Your task to perform on an android device: Is it going to rain tomorrow? Image 0: 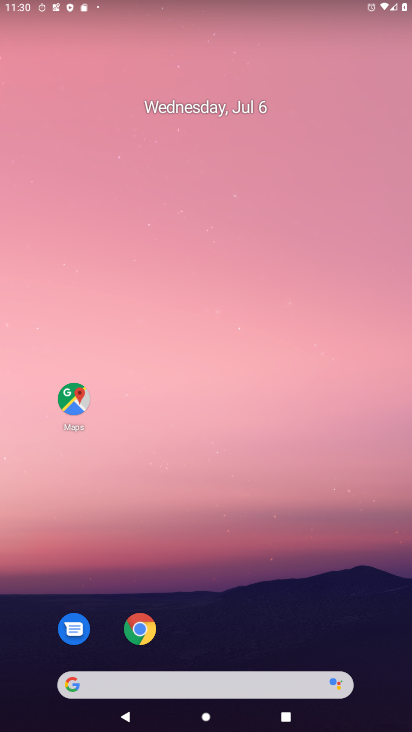
Step 0: drag from (202, 572) to (203, 43)
Your task to perform on an android device: Is it going to rain tomorrow? Image 1: 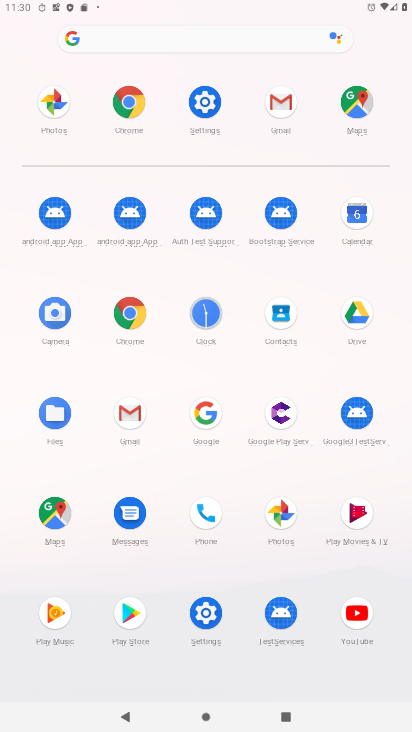
Step 1: click (215, 414)
Your task to perform on an android device: Is it going to rain tomorrow? Image 2: 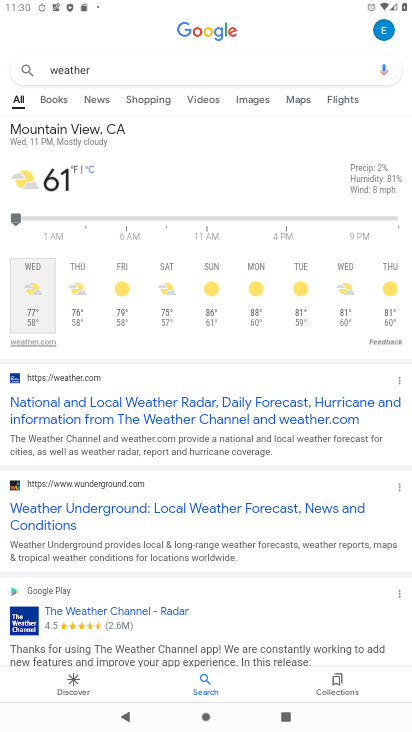
Step 2: click (170, 63)
Your task to perform on an android device: Is it going to rain tomorrow? Image 3: 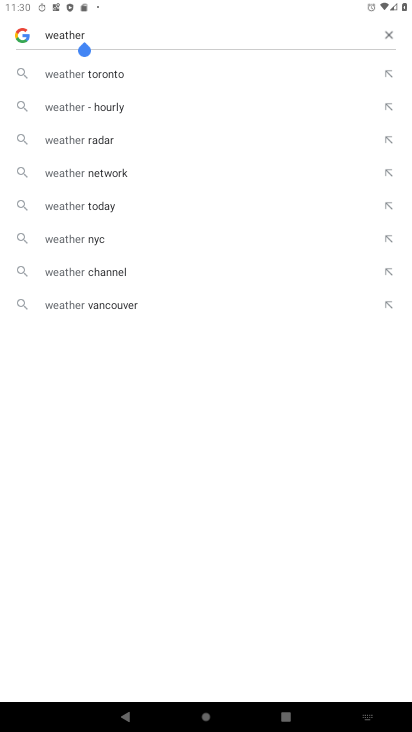
Step 3: click (385, 34)
Your task to perform on an android device: Is it going to rain tomorrow? Image 4: 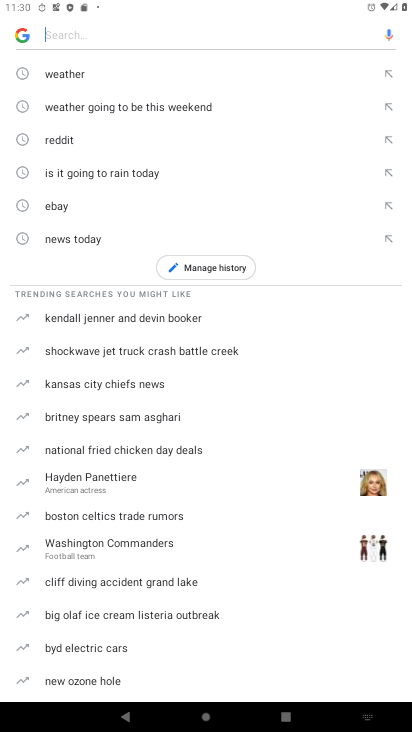
Step 4: type "Is it going to rain tomorrow?"
Your task to perform on an android device: Is it going to rain tomorrow? Image 5: 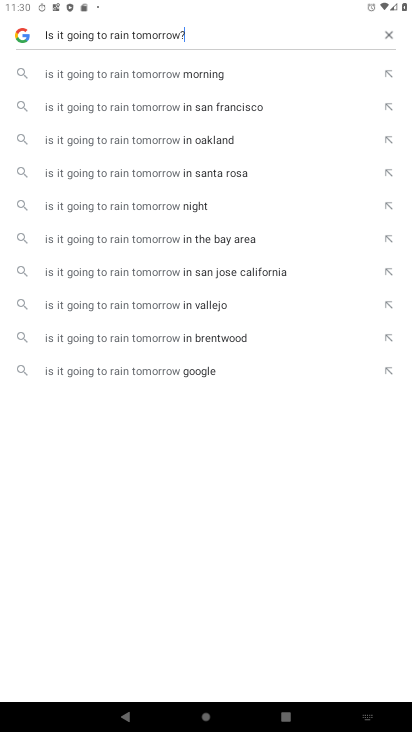
Step 5: click (191, 69)
Your task to perform on an android device: Is it going to rain tomorrow? Image 6: 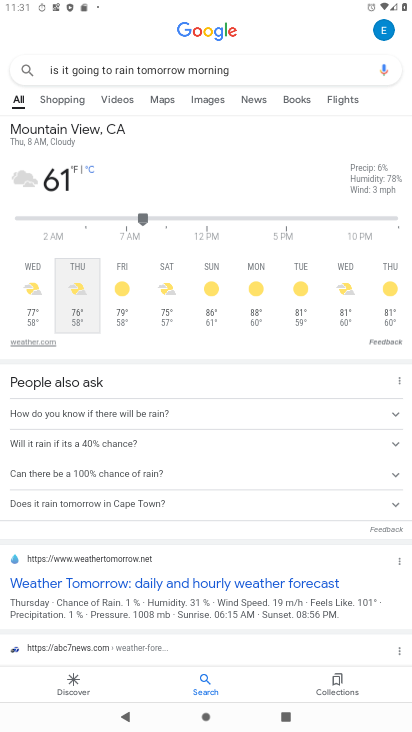
Step 6: task complete